Your task to perform on an android device: Turn off the flashlight Image 0: 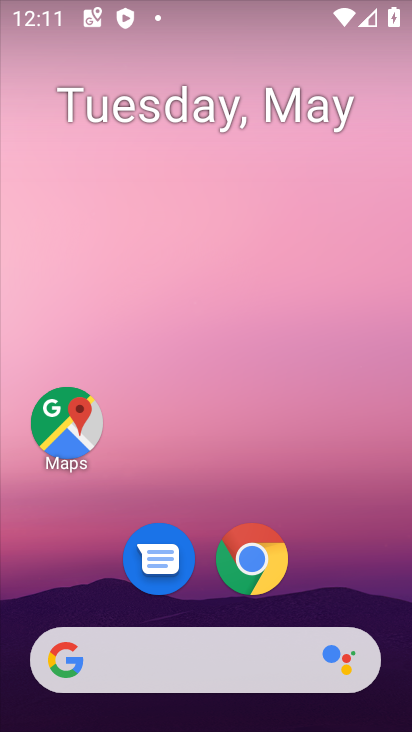
Step 0: drag from (379, 602) to (373, 70)
Your task to perform on an android device: Turn off the flashlight Image 1: 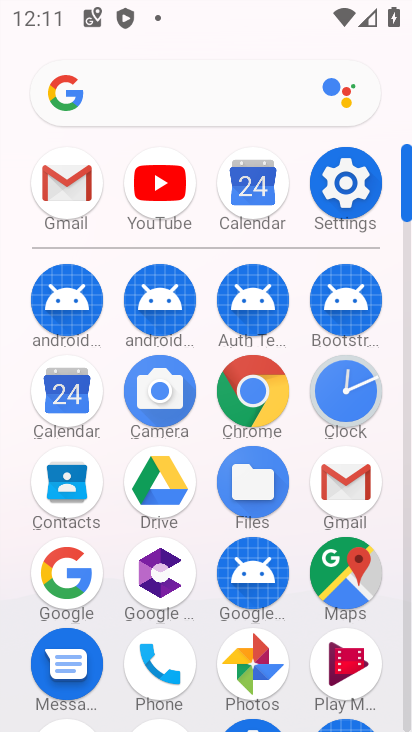
Step 1: click (349, 207)
Your task to perform on an android device: Turn off the flashlight Image 2: 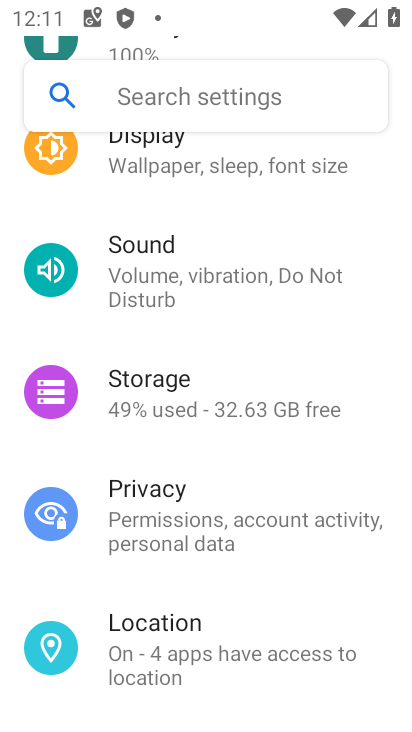
Step 2: task complete